Your task to perform on an android device: toggle location history Image 0: 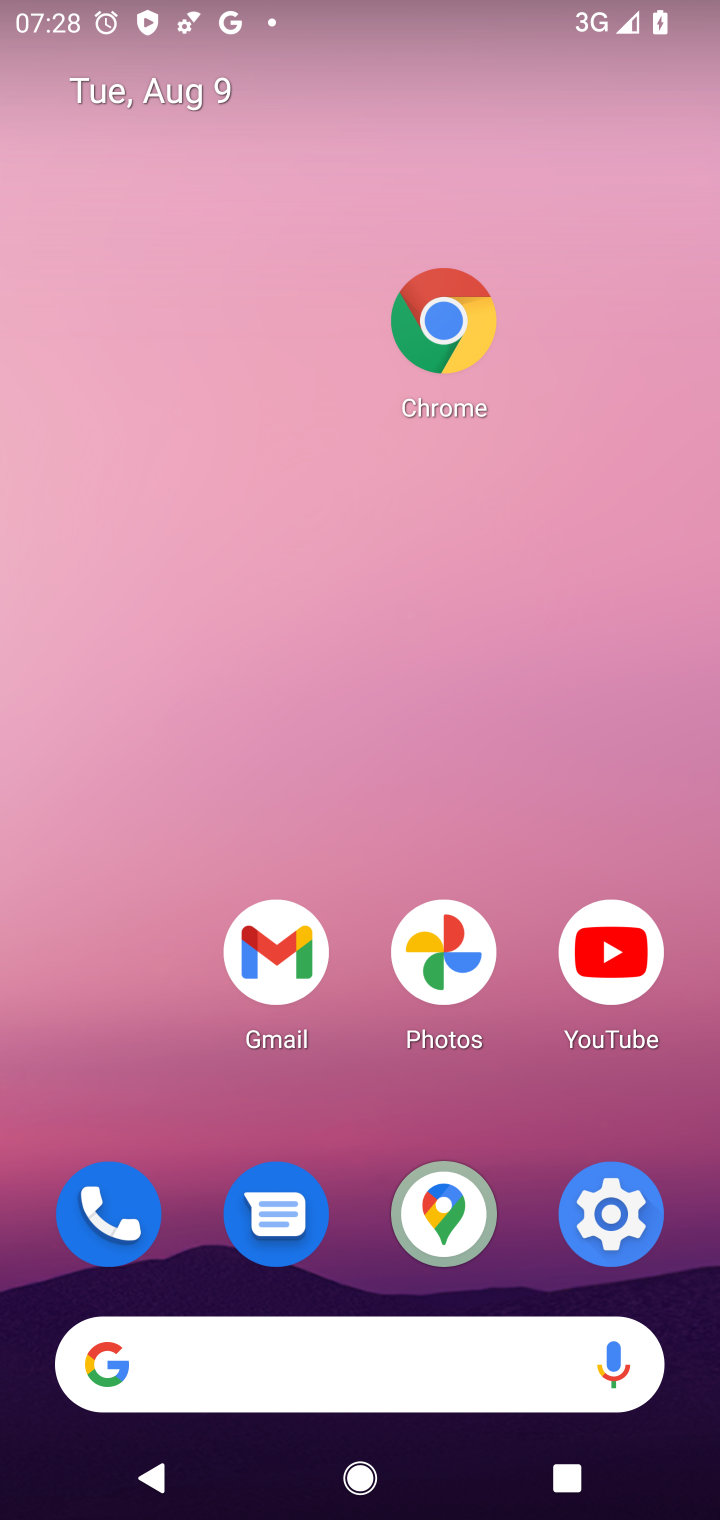
Step 0: drag from (461, 1324) to (208, 507)
Your task to perform on an android device: toggle location history Image 1: 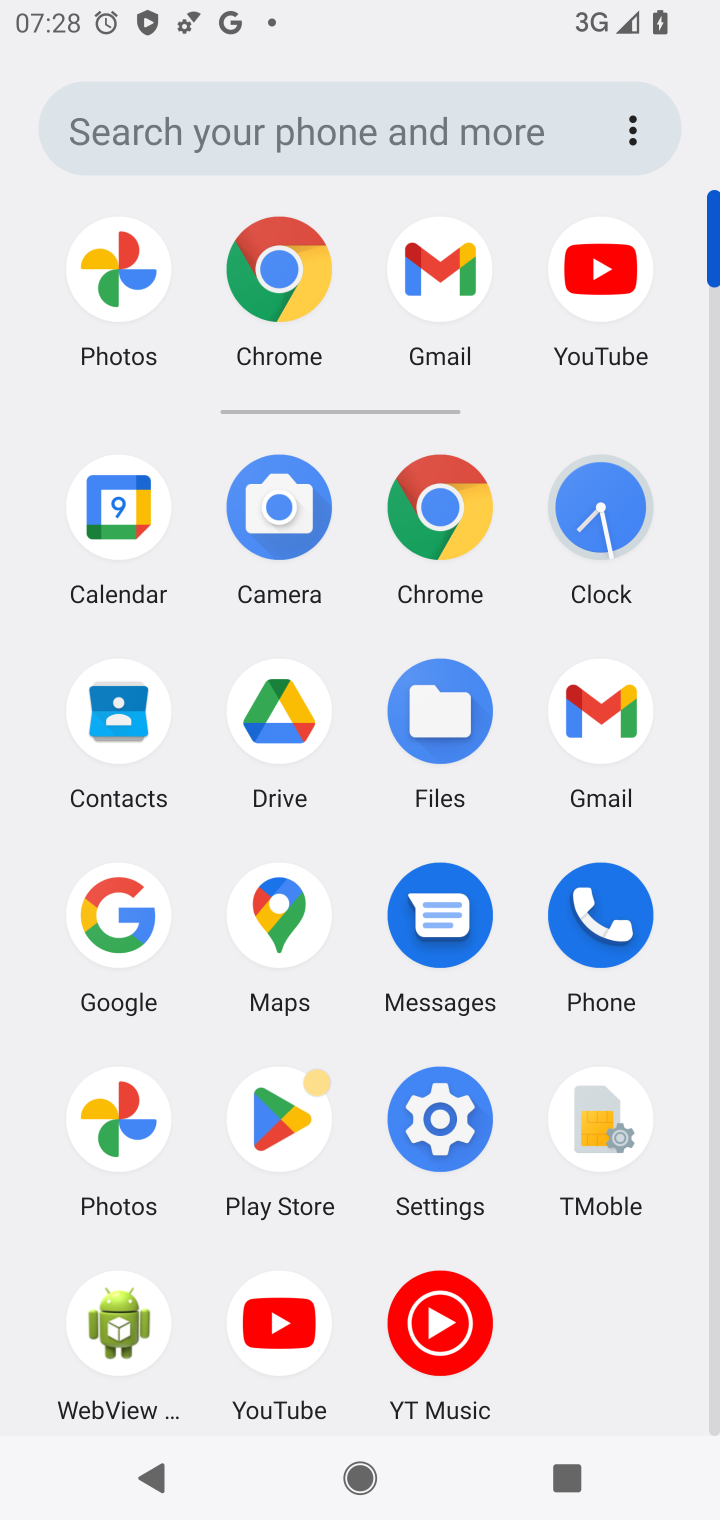
Step 1: click (448, 1127)
Your task to perform on an android device: toggle location history Image 2: 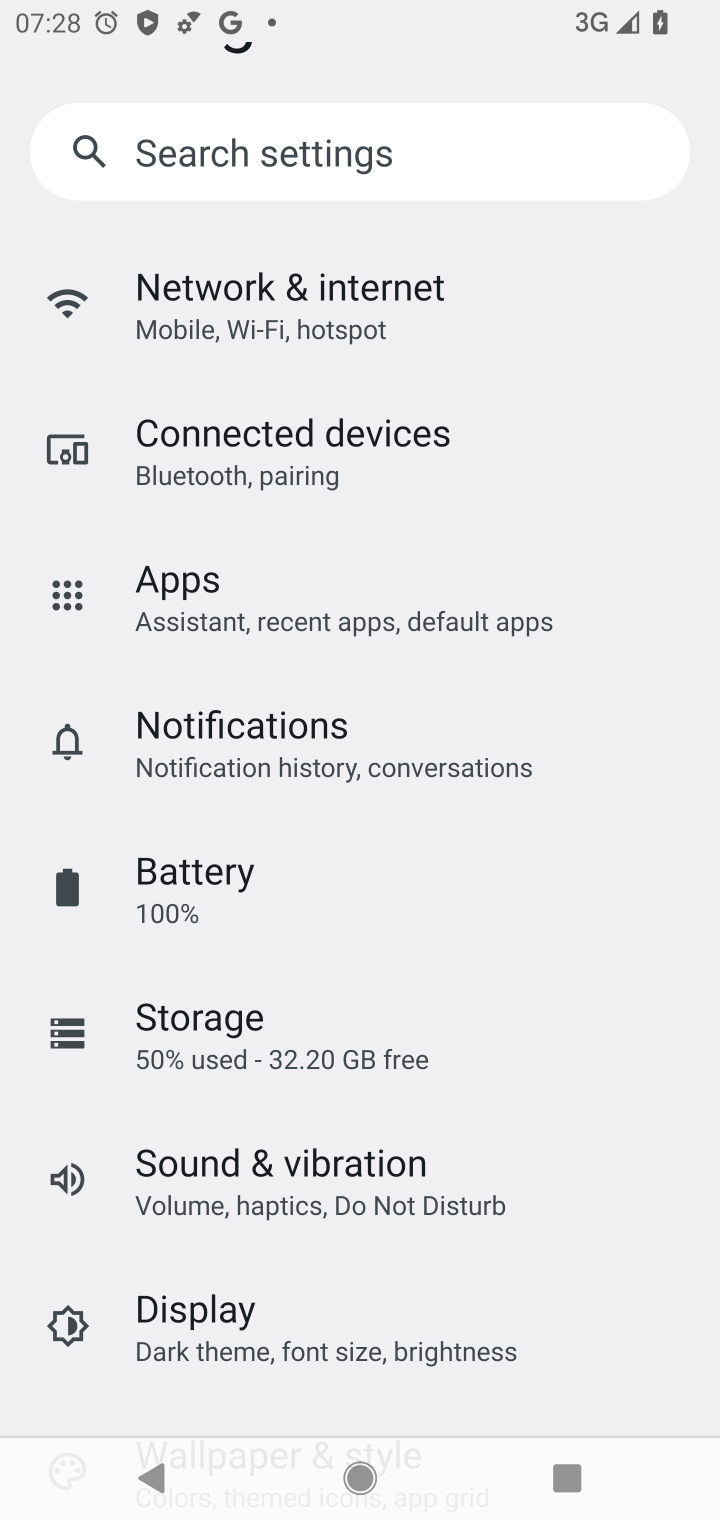
Step 2: click (339, 163)
Your task to perform on an android device: toggle location history Image 3: 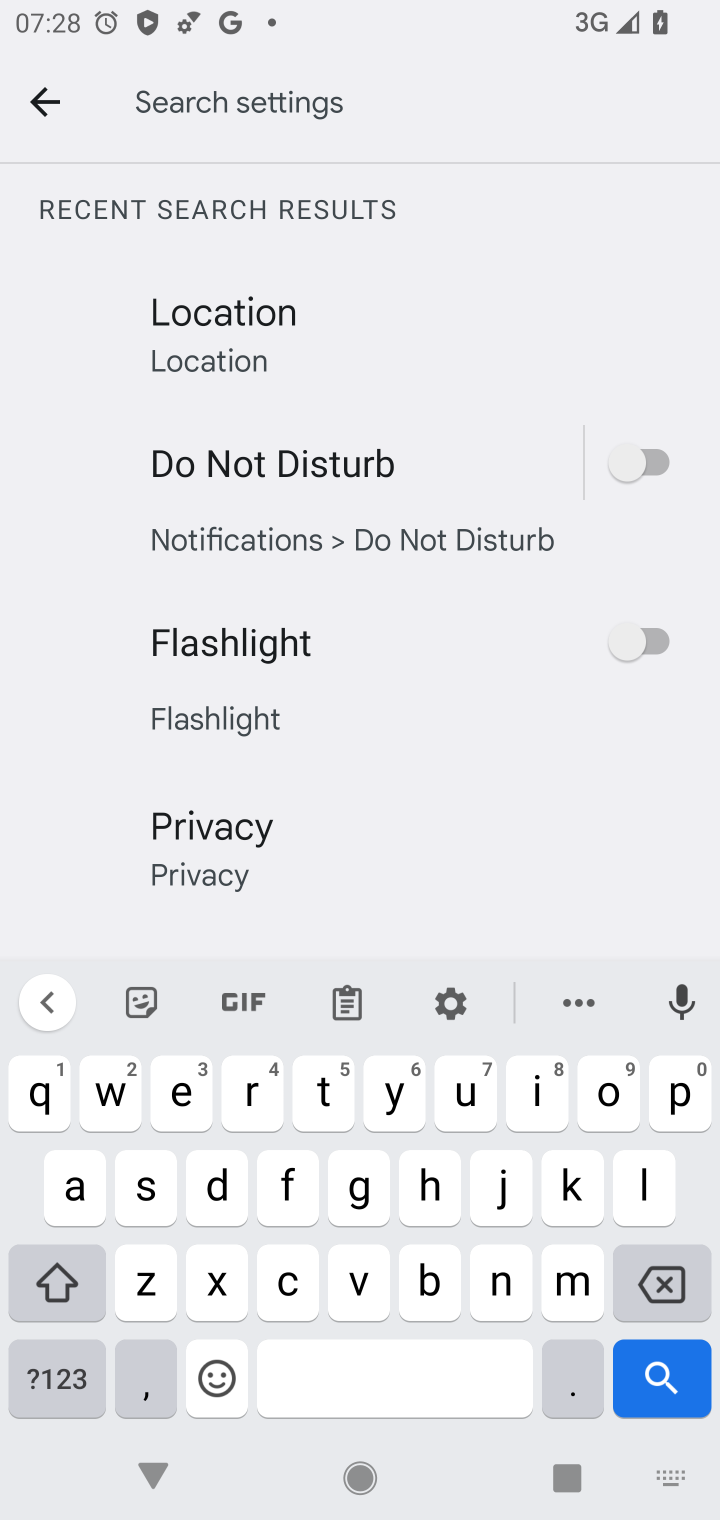
Step 3: click (249, 349)
Your task to perform on an android device: toggle location history Image 4: 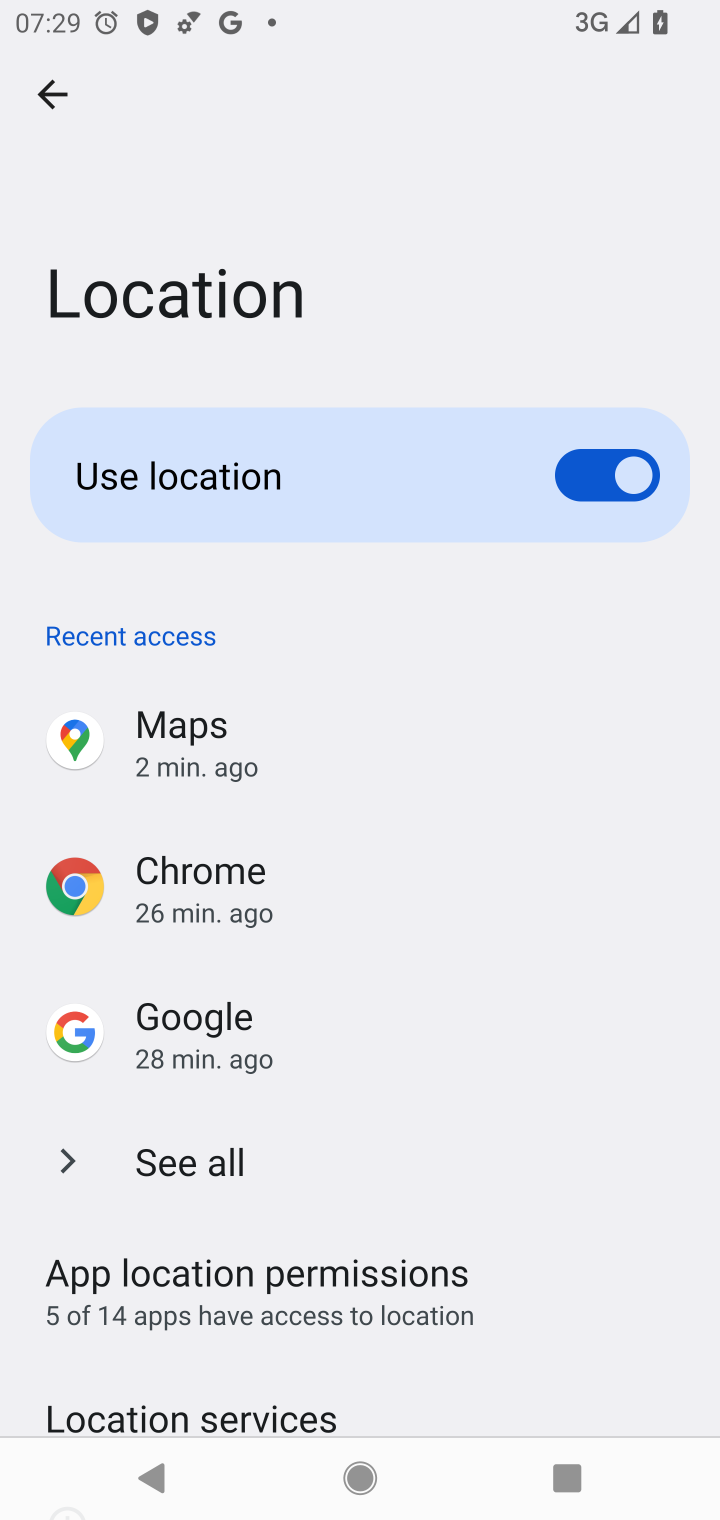
Step 4: click (178, 1420)
Your task to perform on an android device: toggle location history Image 5: 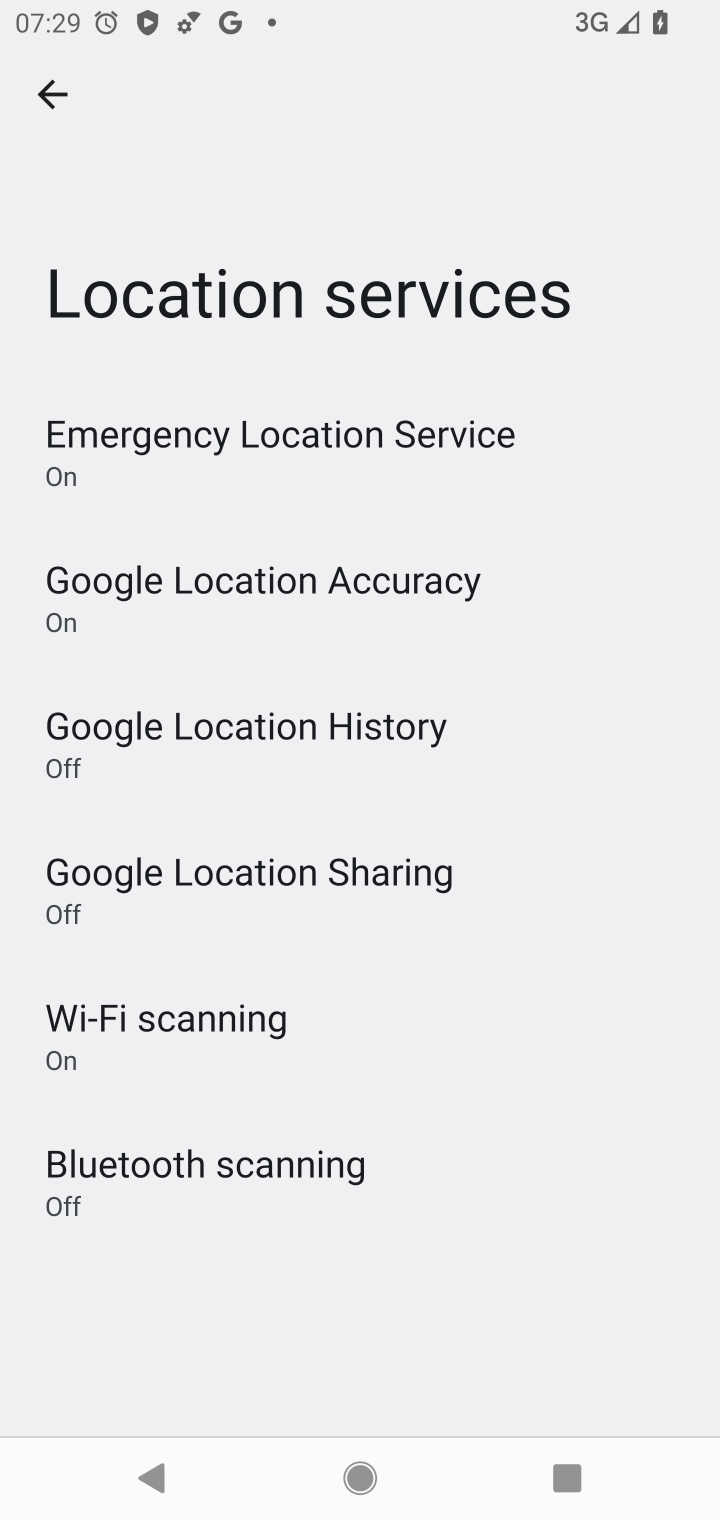
Step 5: click (304, 717)
Your task to perform on an android device: toggle location history Image 6: 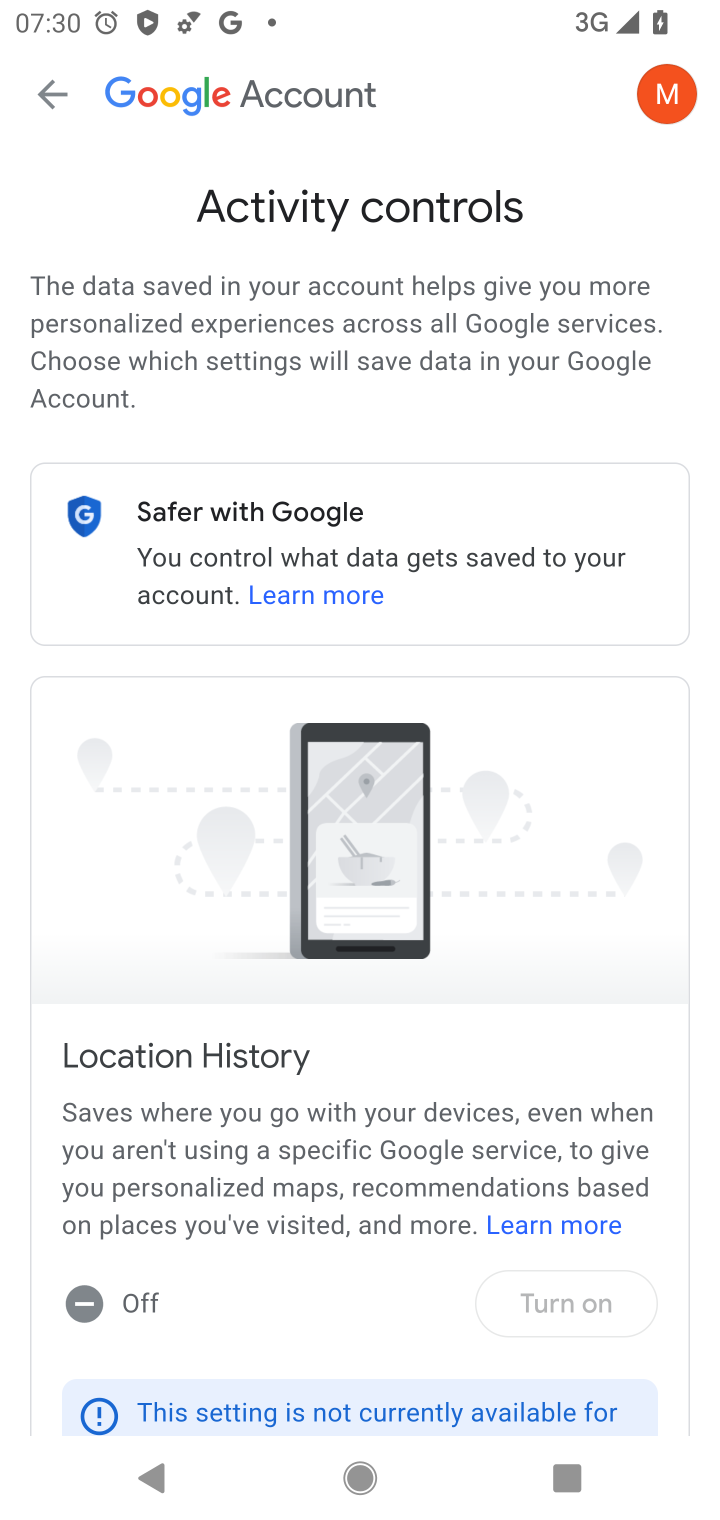
Step 6: task complete